Your task to perform on an android device: Go to ESPN.com Image 0: 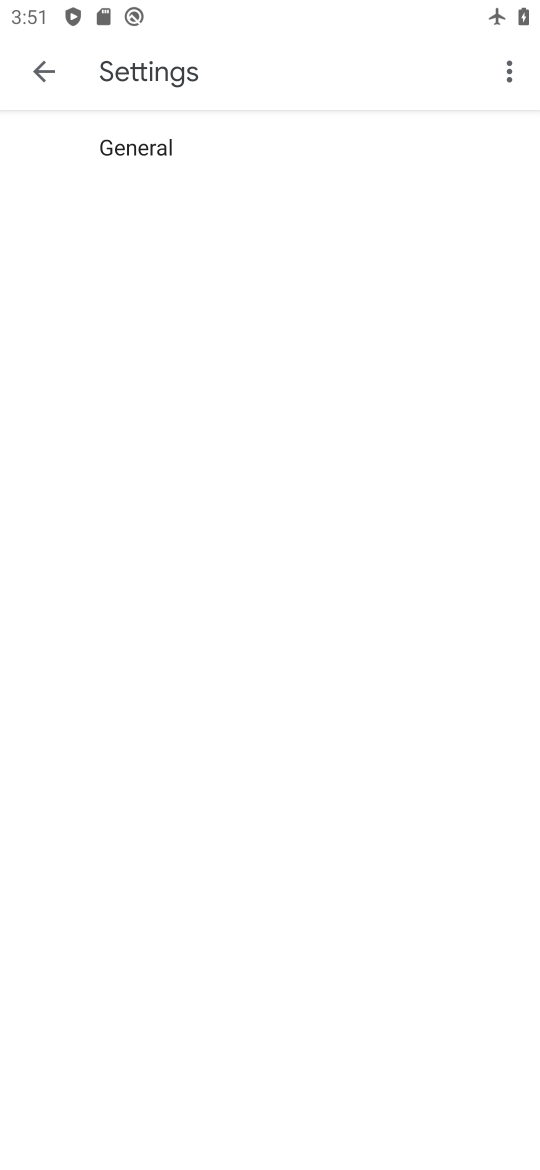
Step 0: press home button
Your task to perform on an android device: Go to ESPN.com Image 1: 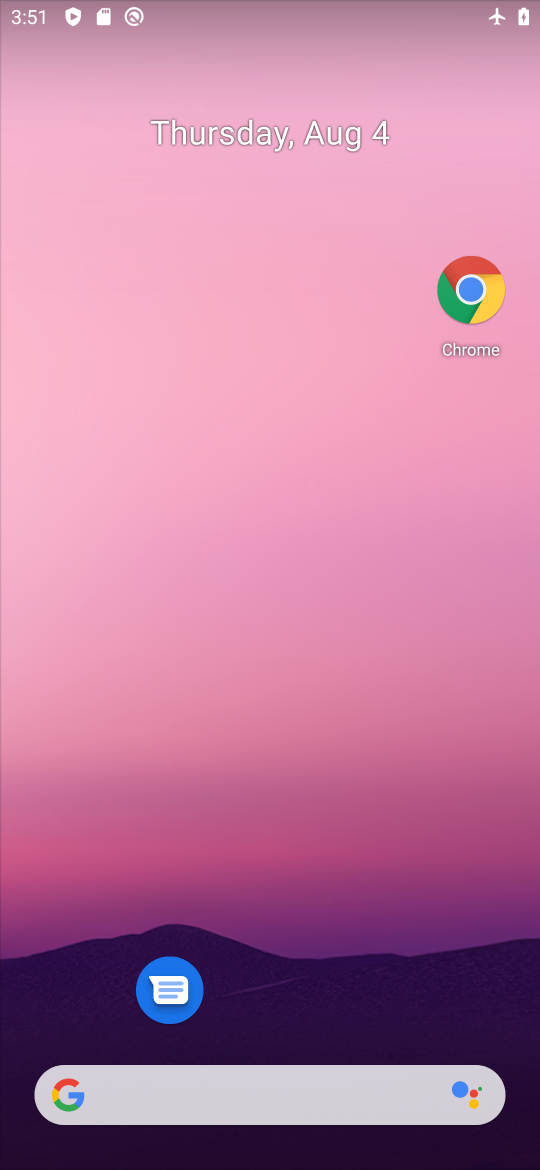
Step 1: click (285, 1086)
Your task to perform on an android device: Go to ESPN.com Image 2: 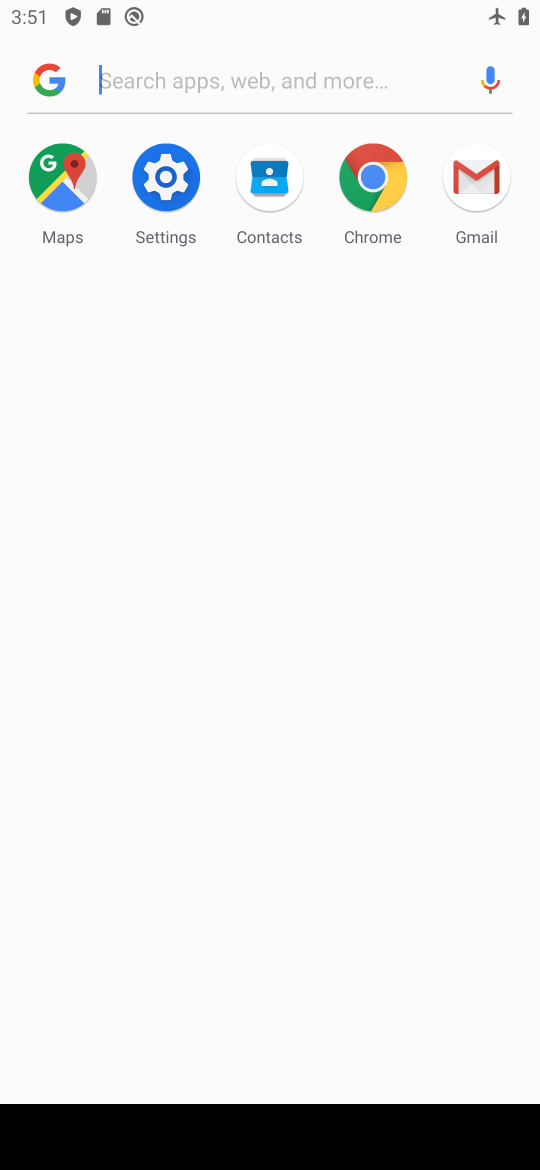
Step 2: type "espn"
Your task to perform on an android device: Go to ESPN.com Image 3: 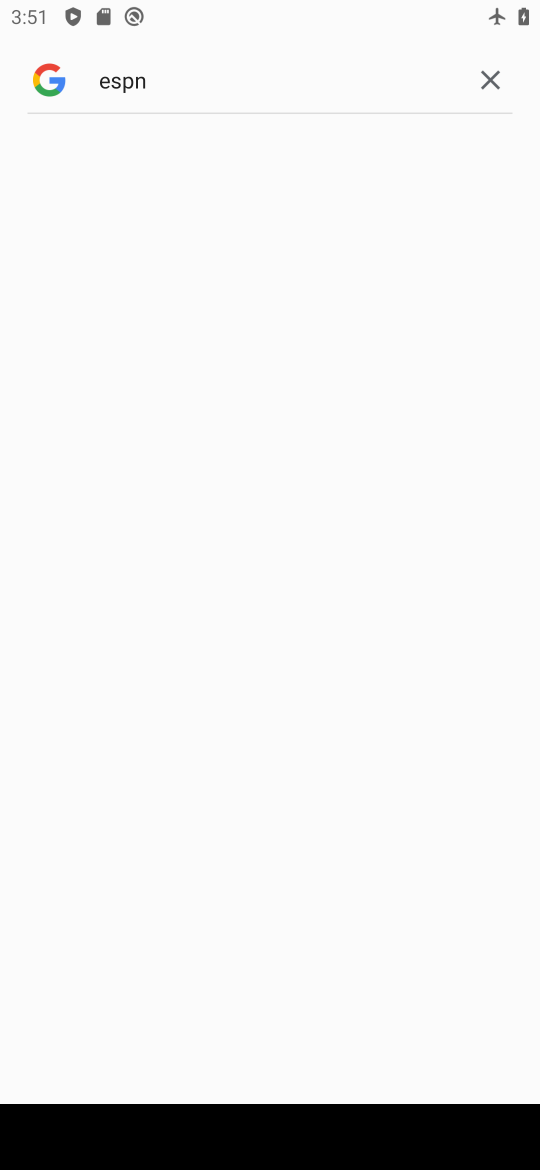
Step 3: task complete